Your task to perform on an android device: Go to display settings Image 0: 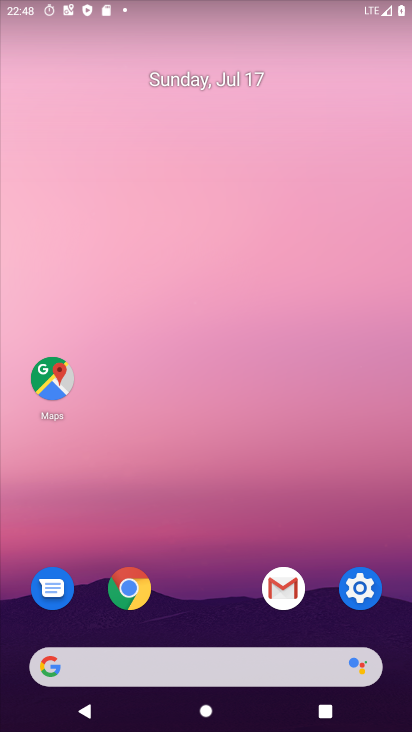
Step 0: click (354, 582)
Your task to perform on an android device: Go to display settings Image 1: 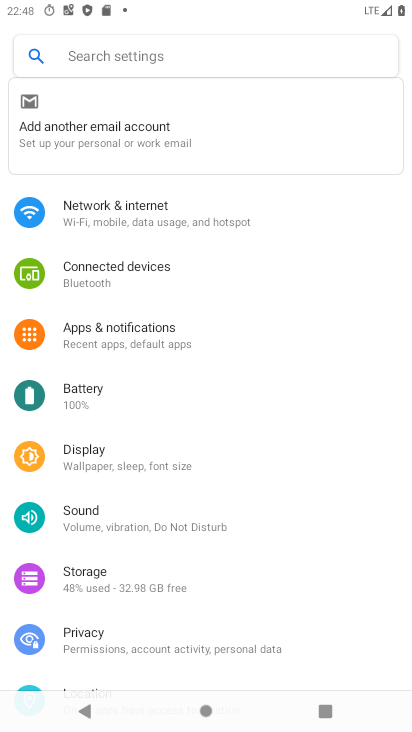
Step 1: click (88, 446)
Your task to perform on an android device: Go to display settings Image 2: 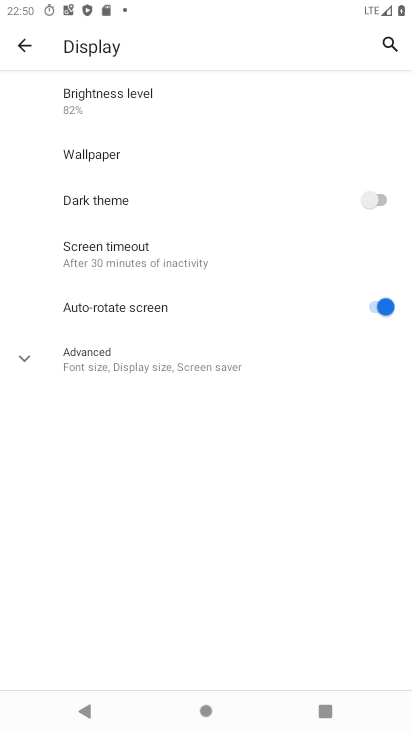
Step 2: task complete